Your task to perform on an android device: Open Wikipedia Image 0: 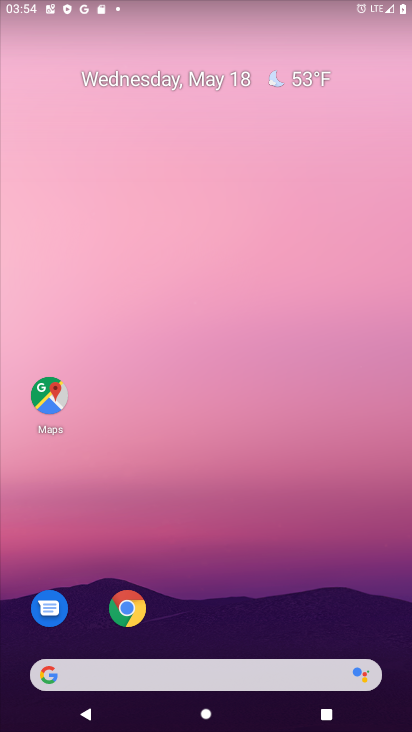
Step 0: click (129, 614)
Your task to perform on an android device: Open Wikipedia Image 1: 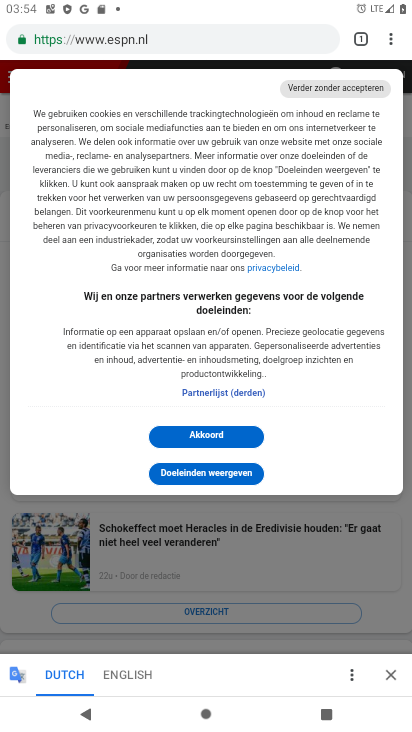
Step 1: click (113, 37)
Your task to perform on an android device: Open Wikipedia Image 2: 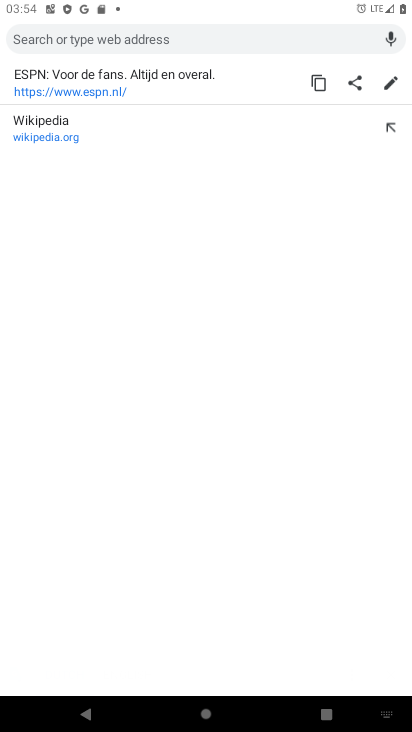
Step 2: click (57, 132)
Your task to perform on an android device: Open Wikipedia Image 3: 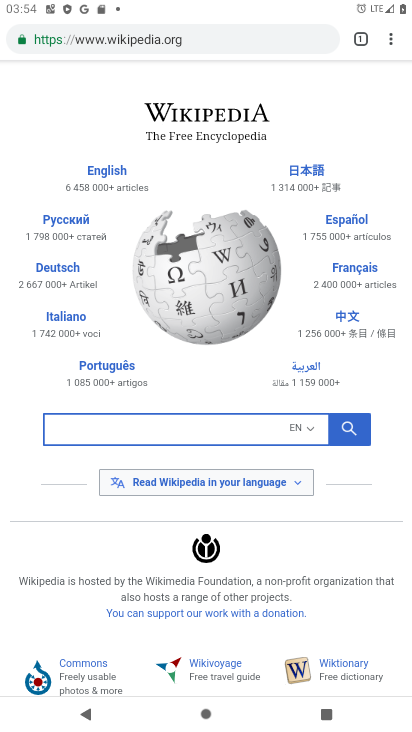
Step 3: task complete